Your task to perform on an android device: Show the shopping cart on bestbuy.com. Add logitech g pro to the cart on bestbuy.com, then select checkout. Image 0: 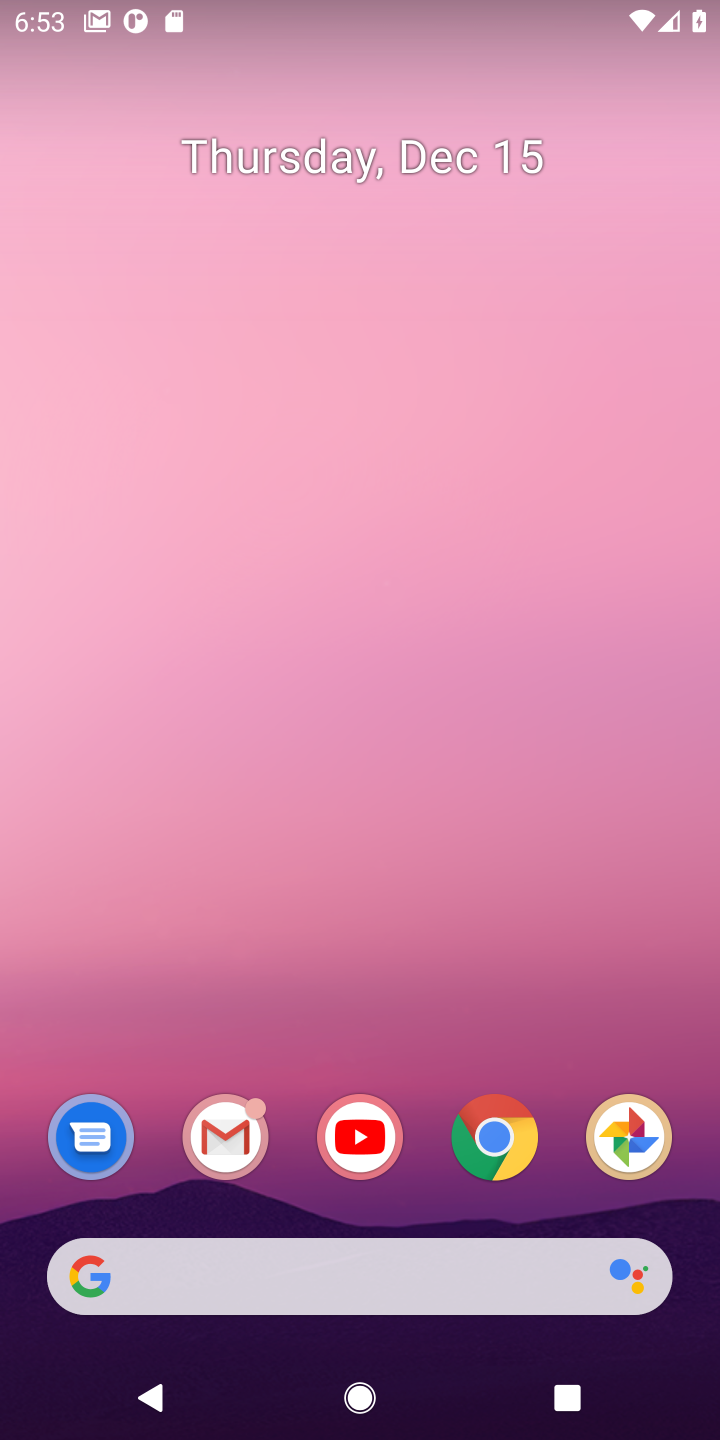
Step 0: drag from (404, 1054) to (442, 499)
Your task to perform on an android device: Show the shopping cart on bestbuy.com. Add logitech g pro to the cart on bestbuy.com, then select checkout. Image 1: 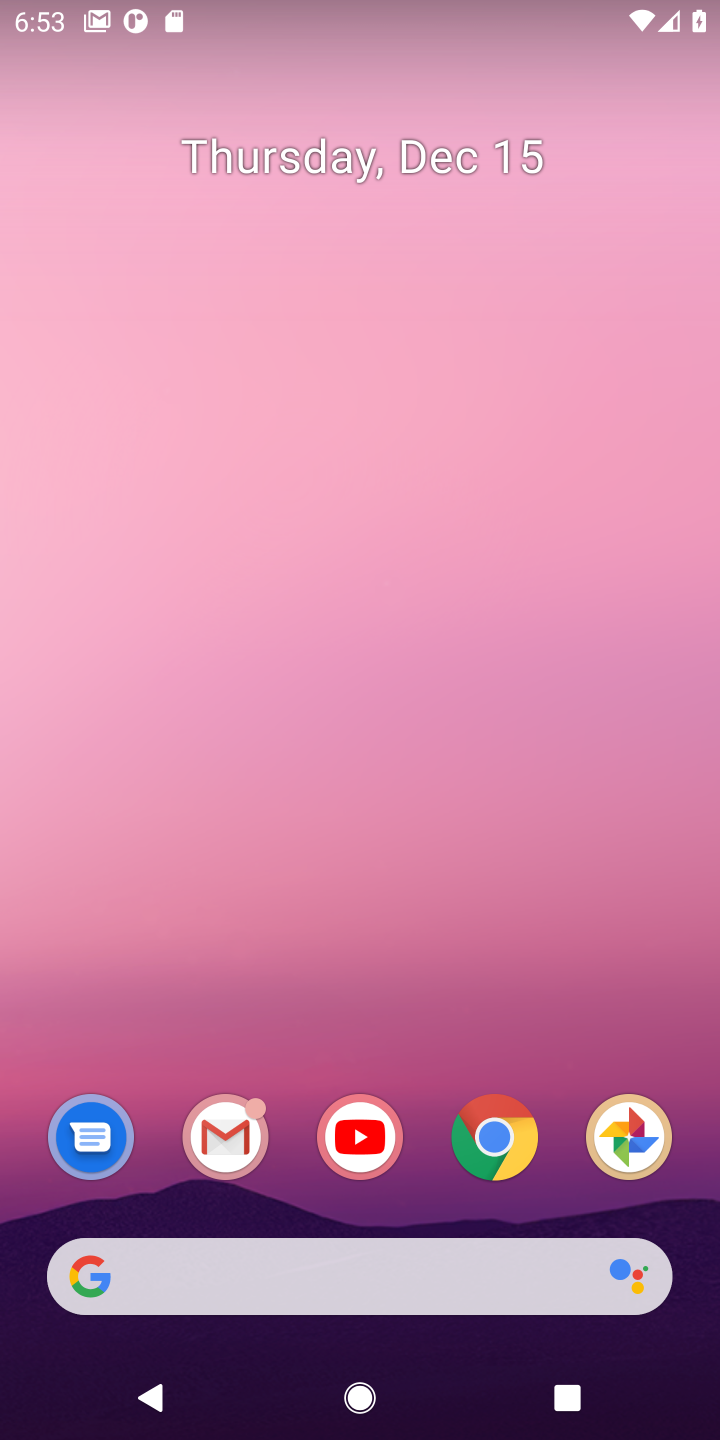
Step 1: drag from (250, 1274) to (317, 546)
Your task to perform on an android device: Show the shopping cart on bestbuy.com. Add logitech g pro to the cart on bestbuy.com, then select checkout. Image 2: 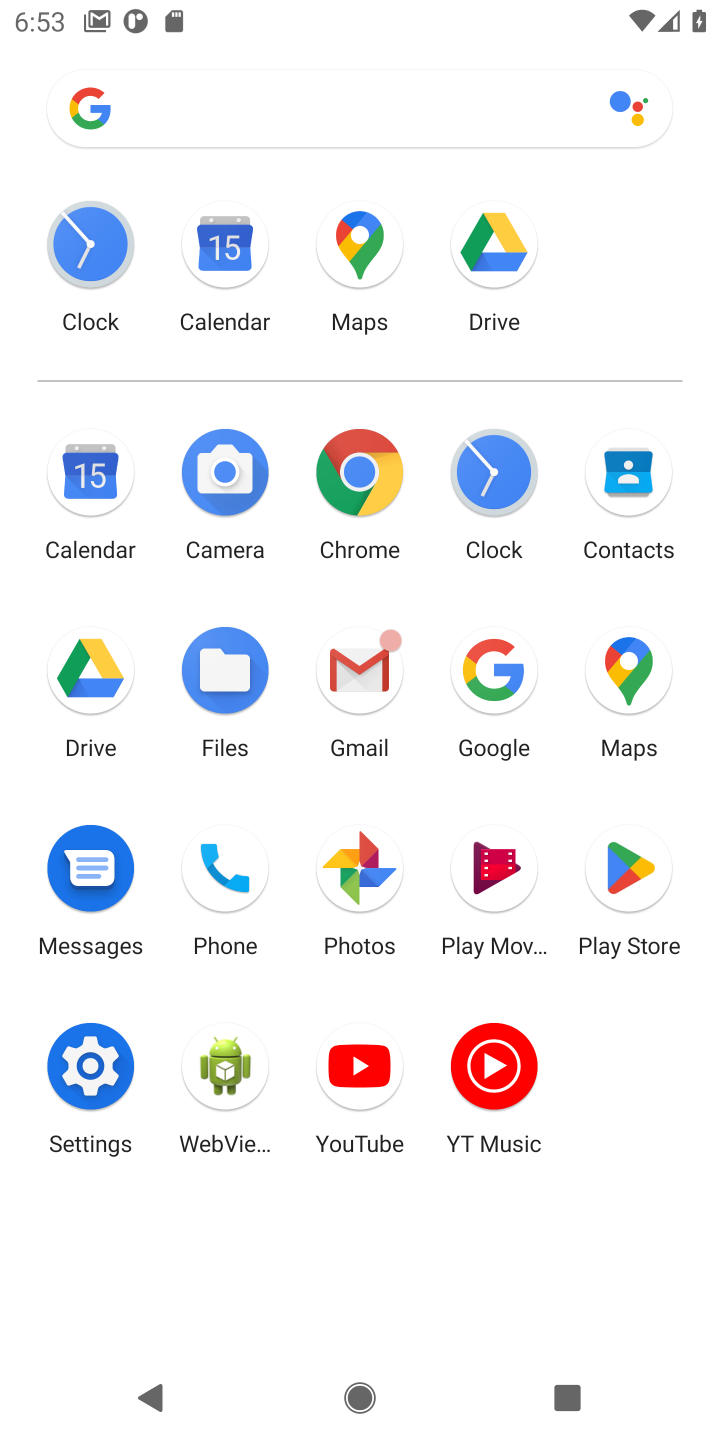
Step 2: click (497, 683)
Your task to perform on an android device: Show the shopping cart on bestbuy.com. Add logitech g pro to the cart on bestbuy.com, then select checkout. Image 3: 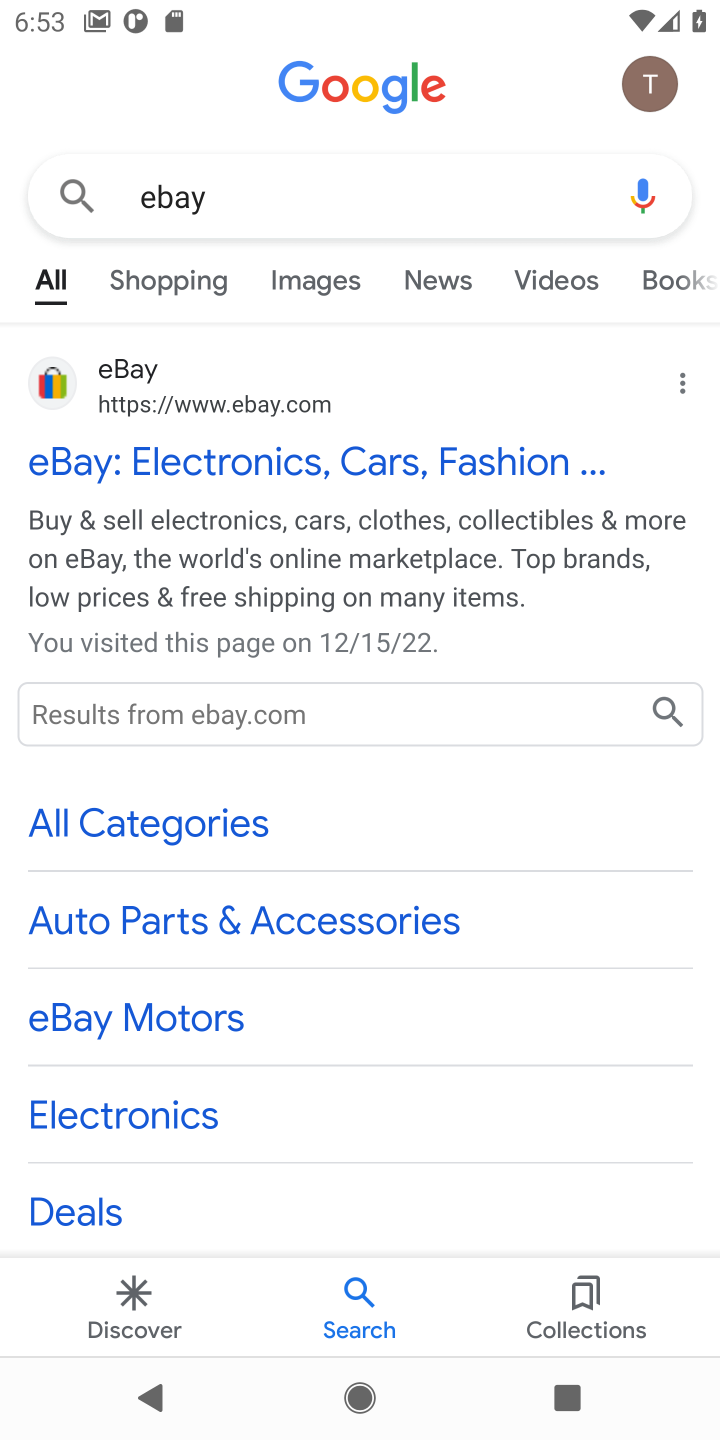
Step 3: click (175, 196)
Your task to perform on an android device: Show the shopping cart on bestbuy.com. Add logitech g pro to the cart on bestbuy.com, then select checkout. Image 4: 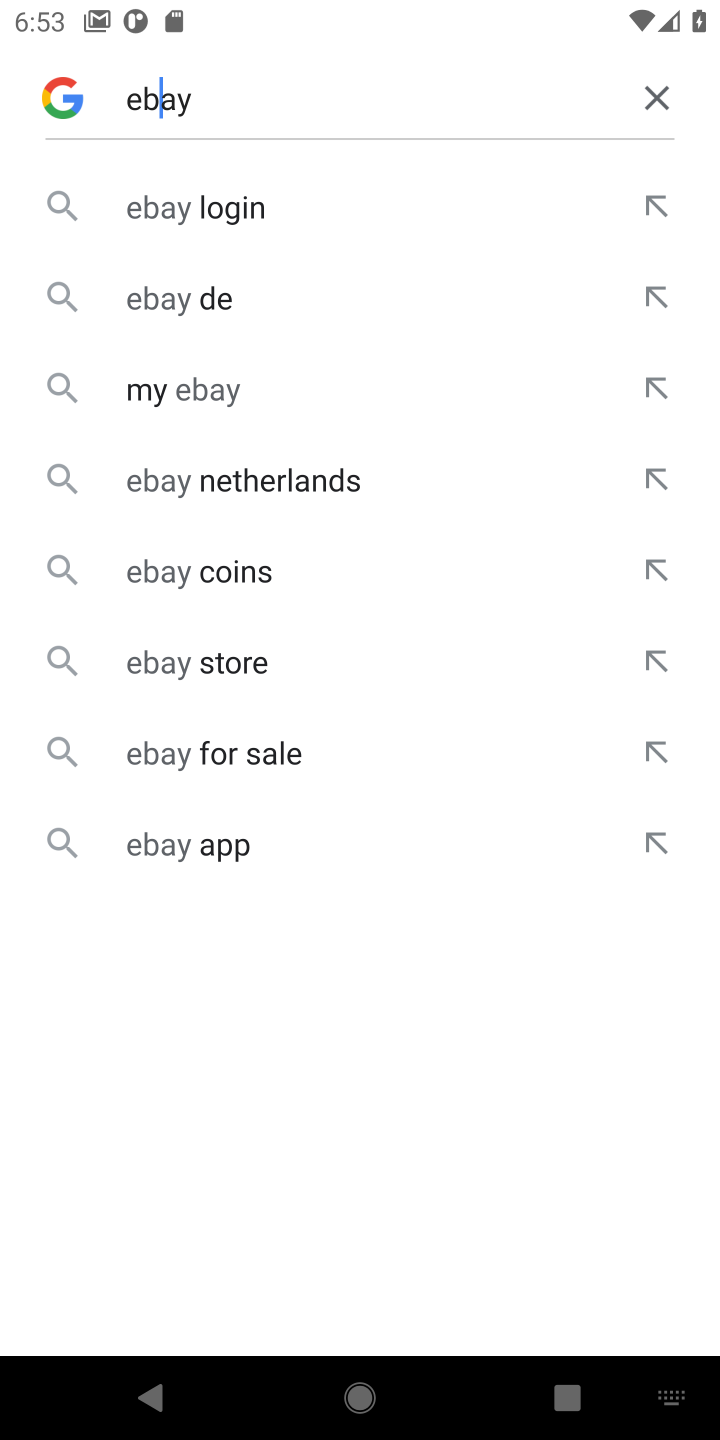
Step 4: click (652, 96)
Your task to perform on an android device: Show the shopping cart on bestbuy.com. Add logitech g pro to the cart on bestbuy.com, then select checkout. Image 5: 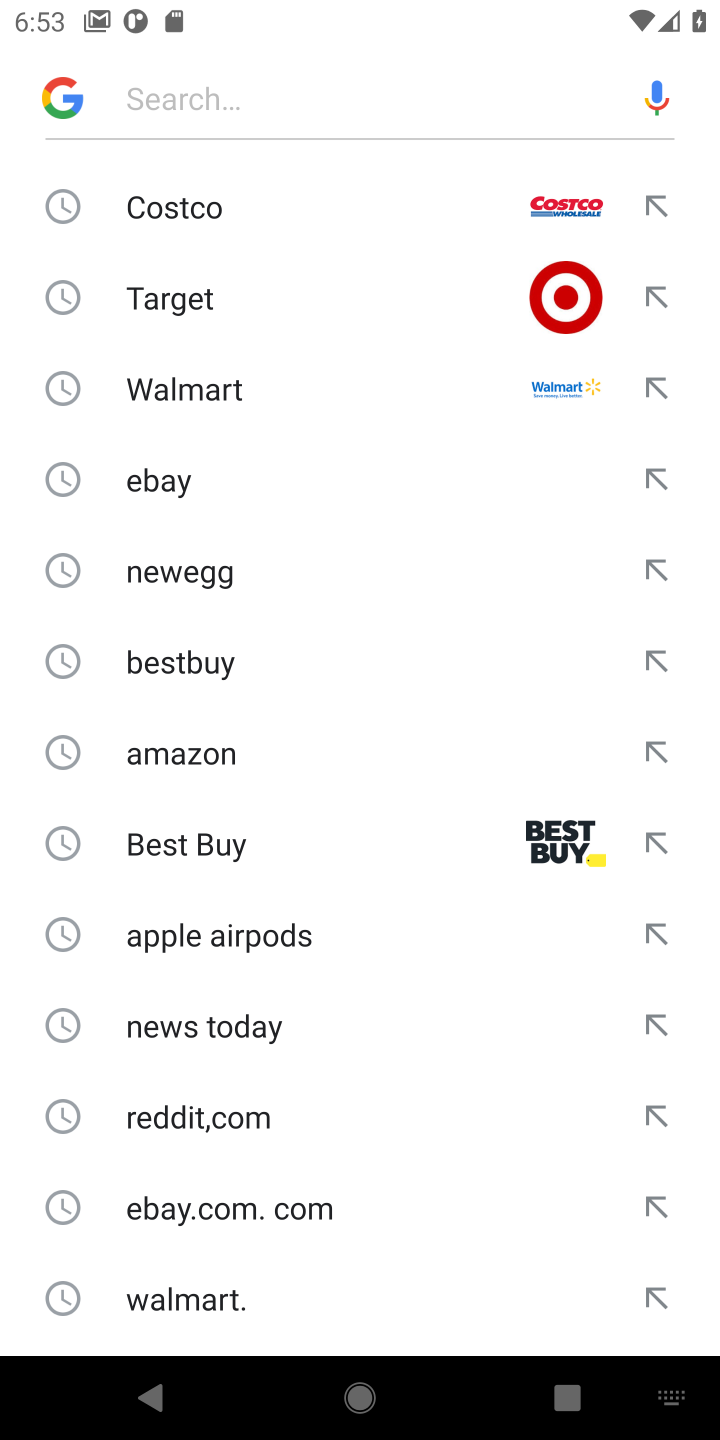
Step 5: click (178, 657)
Your task to perform on an android device: Show the shopping cart on bestbuy.com. Add logitech g pro to the cart on bestbuy.com, then select checkout. Image 6: 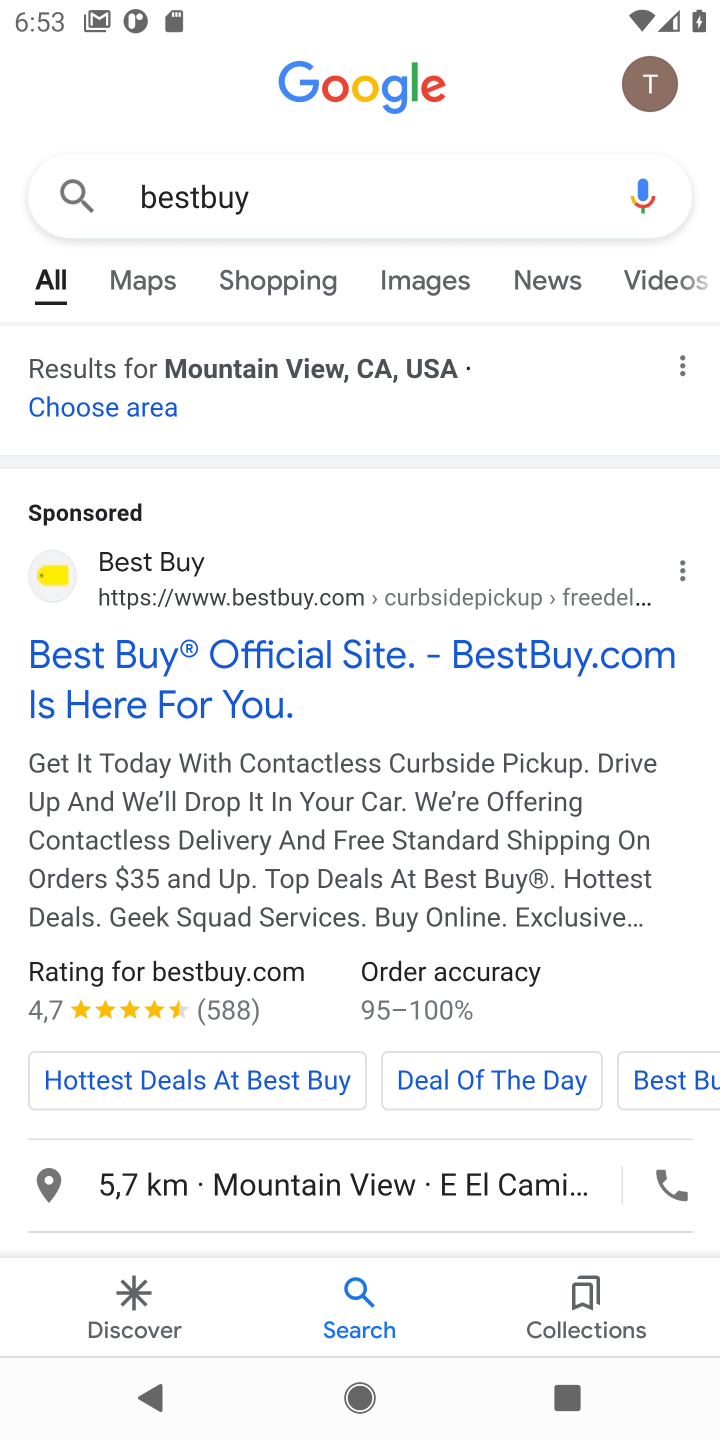
Step 6: click (190, 679)
Your task to perform on an android device: Show the shopping cart on bestbuy.com. Add logitech g pro to the cart on bestbuy.com, then select checkout. Image 7: 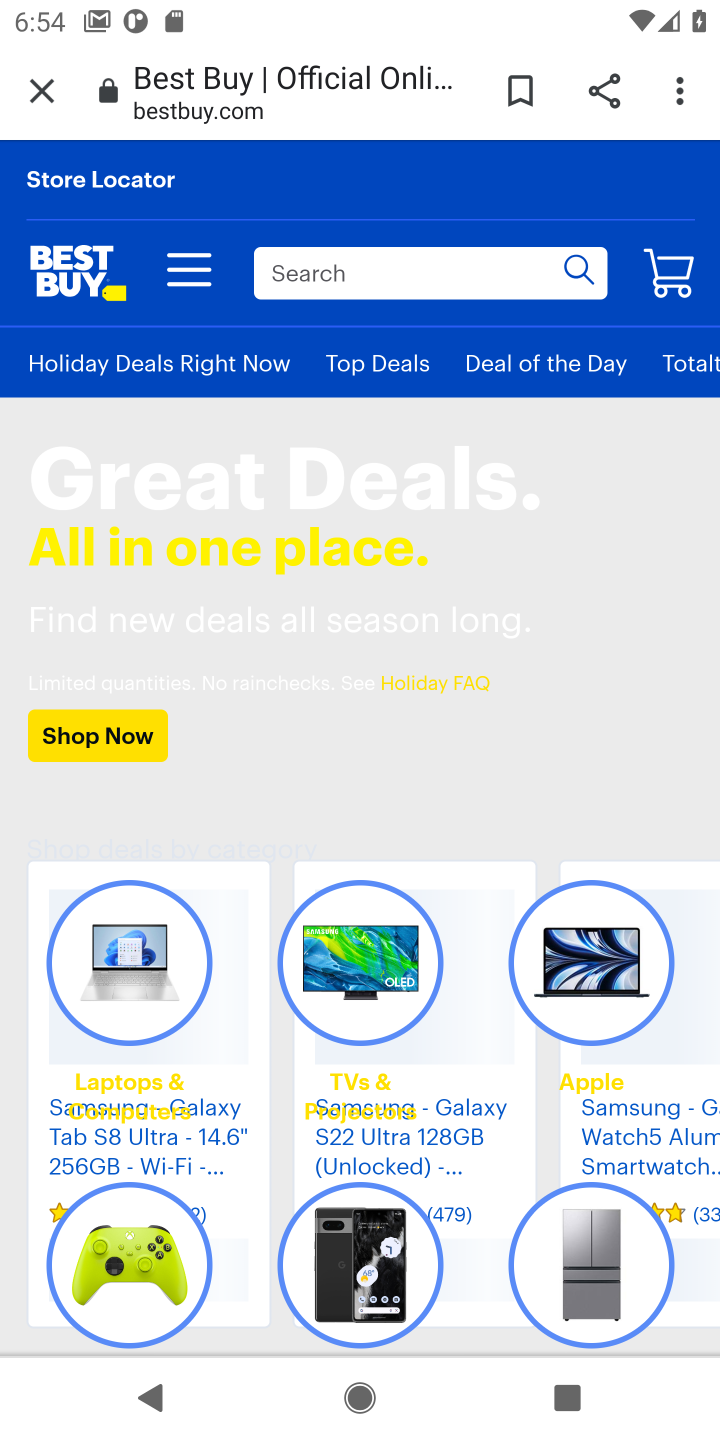
Step 7: click (346, 273)
Your task to perform on an android device: Show the shopping cart on bestbuy.com. Add logitech g pro to the cart on bestbuy.com, then select checkout. Image 8: 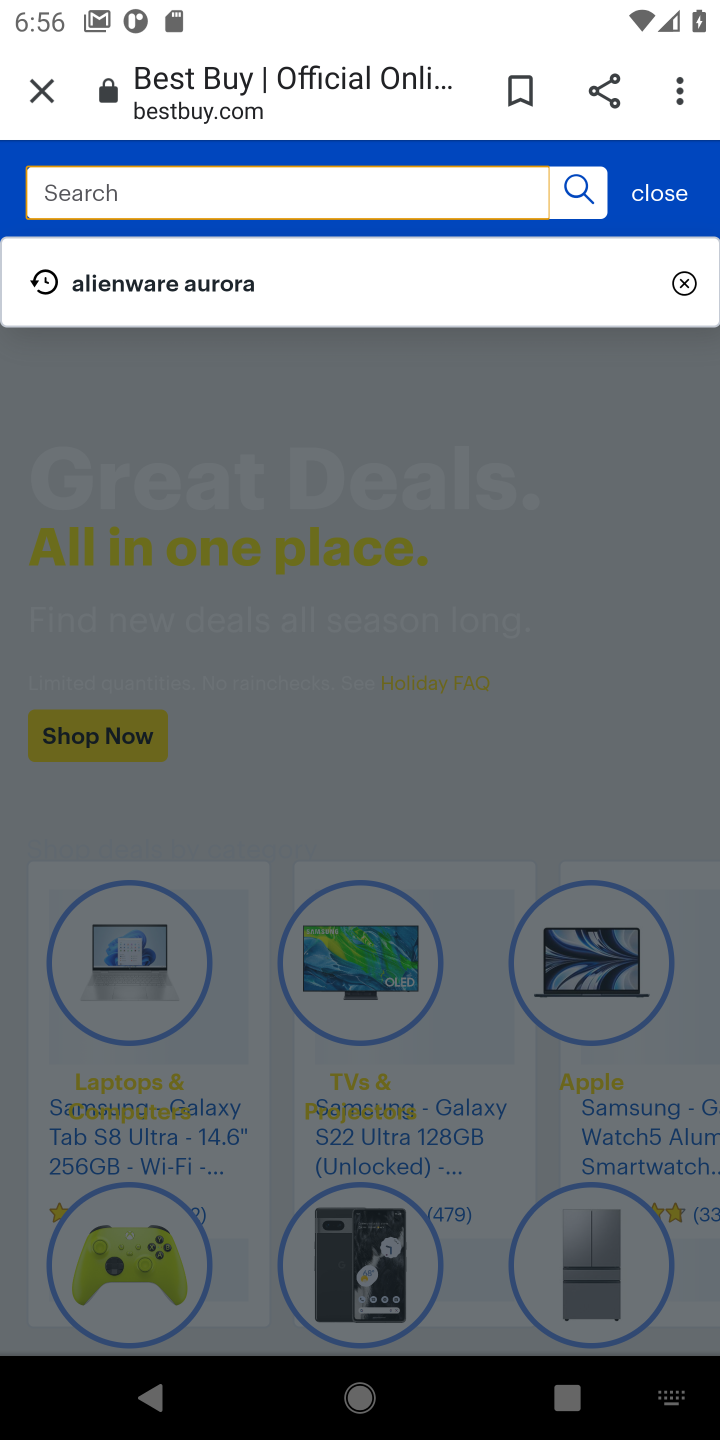
Step 8: type "logitech g pro"
Your task to perform on an android device: Show the shopping cart on bestbuy.com. Add logitech g pro to the cart on bestbuy.com, then select checkout. Image 9: 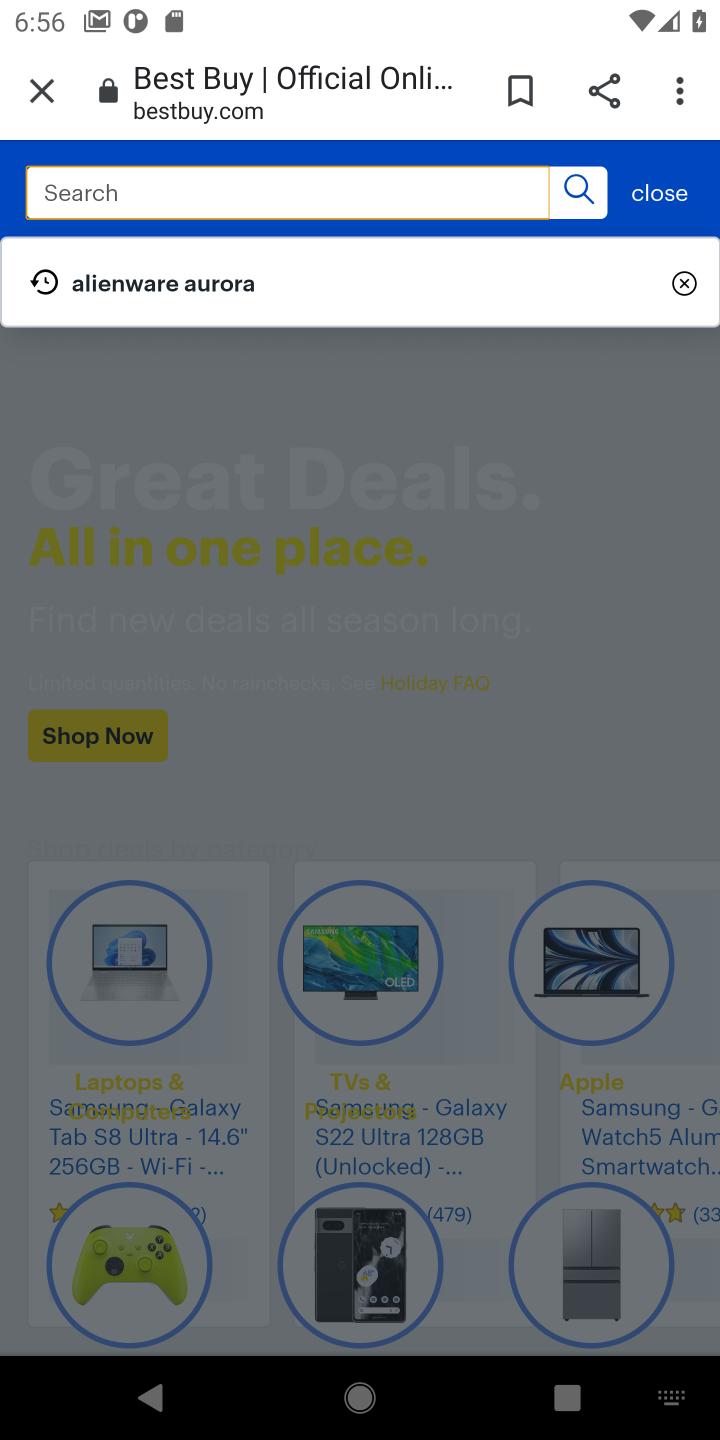
Step 9: click (575, 188)
Your task to perform on an android device: Show the shopping cart on bestbuy.com. Add logitech g pro to the cart on bestbuy.com, then select checkout. Image 10: 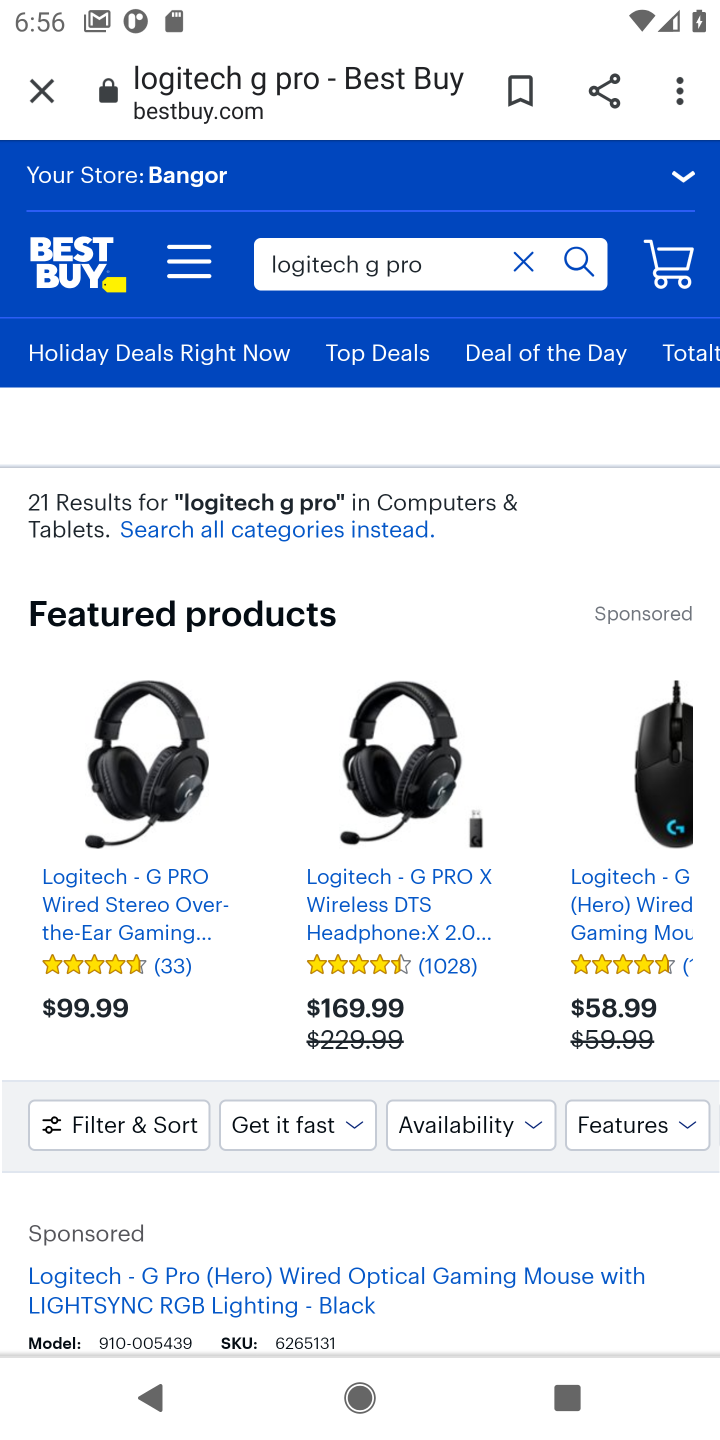
Step 10: drag from (263, 1206) to (272, 549)
Your task to perform on an android device: Show the shopping cart on bestbuy.com. Add logitech g pro to the cart on bestbuy.com, then select checkout. Image 11: 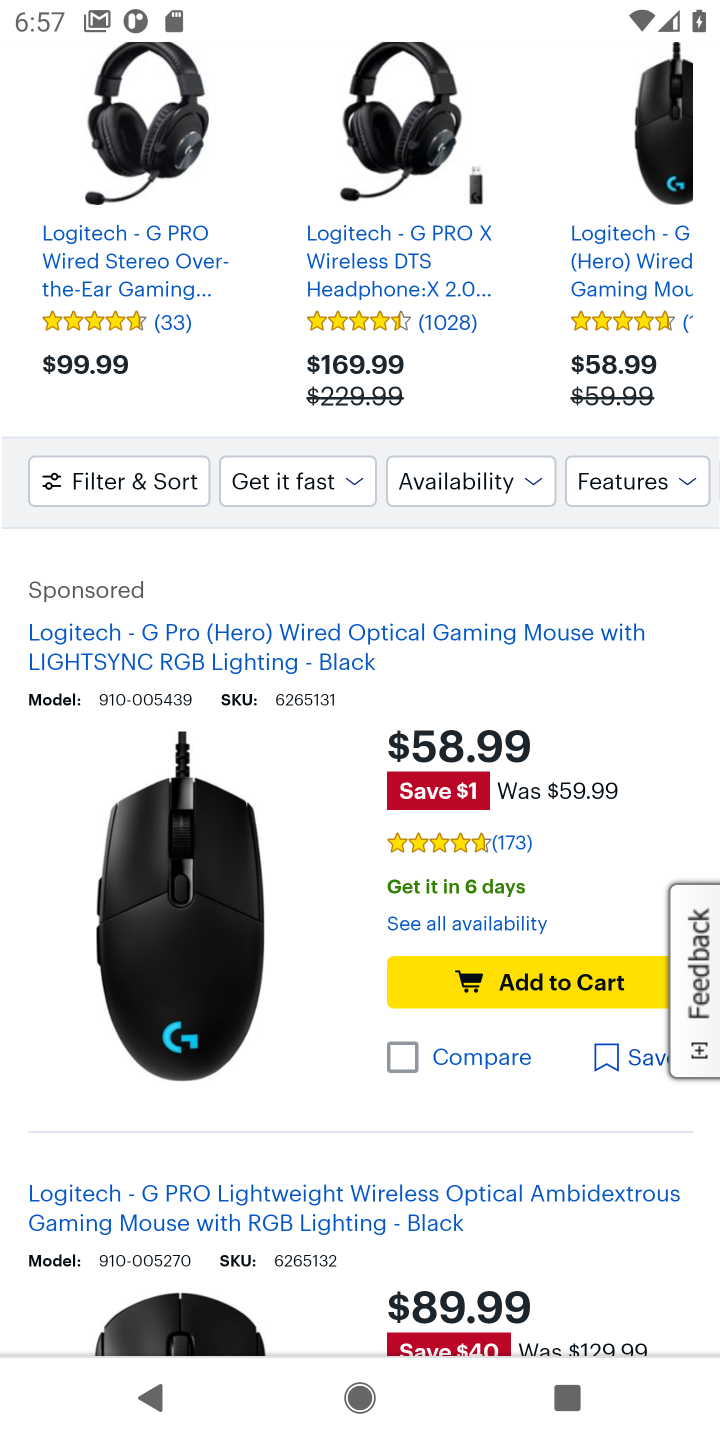
Step 11: click (585, 998)
Your task to perform on an android device: Show the shopping cart on bestbuy.com. Add logitech g pro to the cart on bestbuy.com, then select checkout. Image 12: 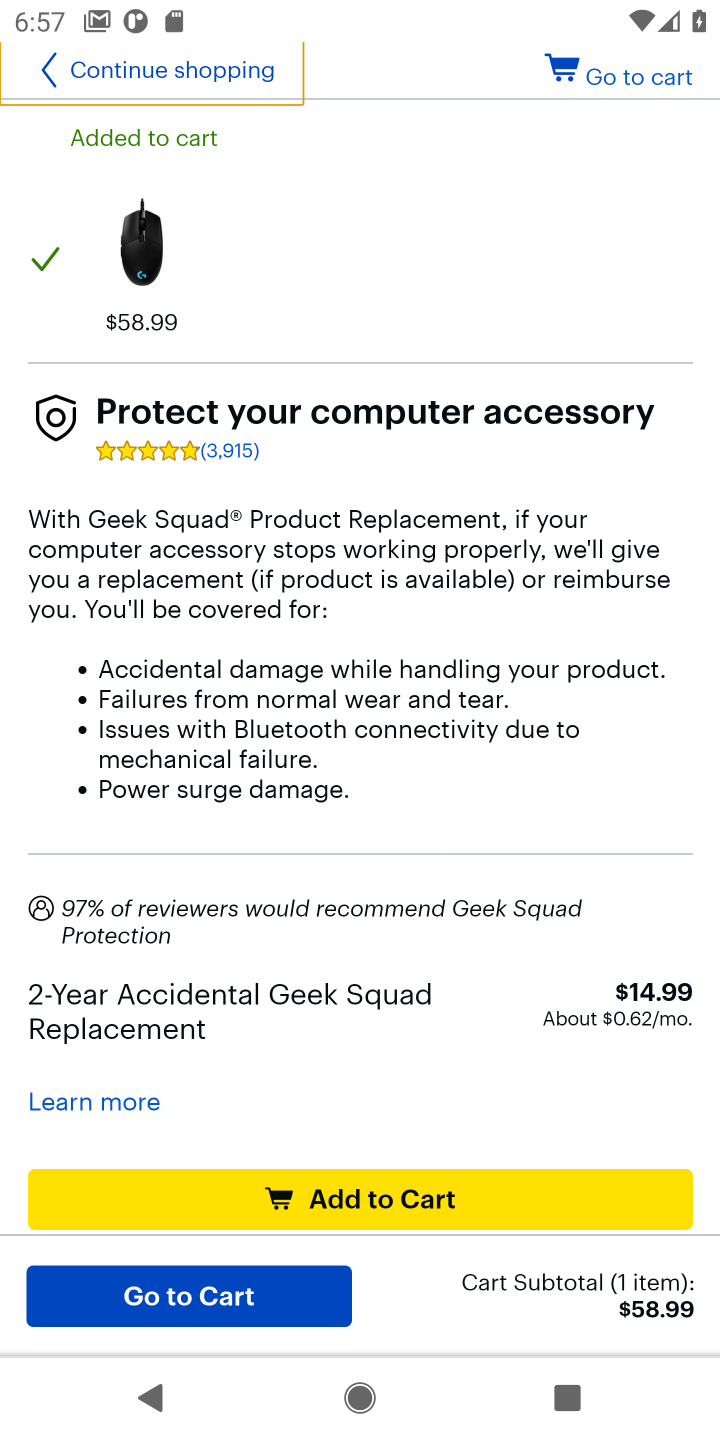
Step 12: click (286, 1193)
Your task to perform on an android device: Show the shopping cart on bestbuy.com. Add logitech g pro to the cart on bestbuy.com, then select checkout. Image 13: 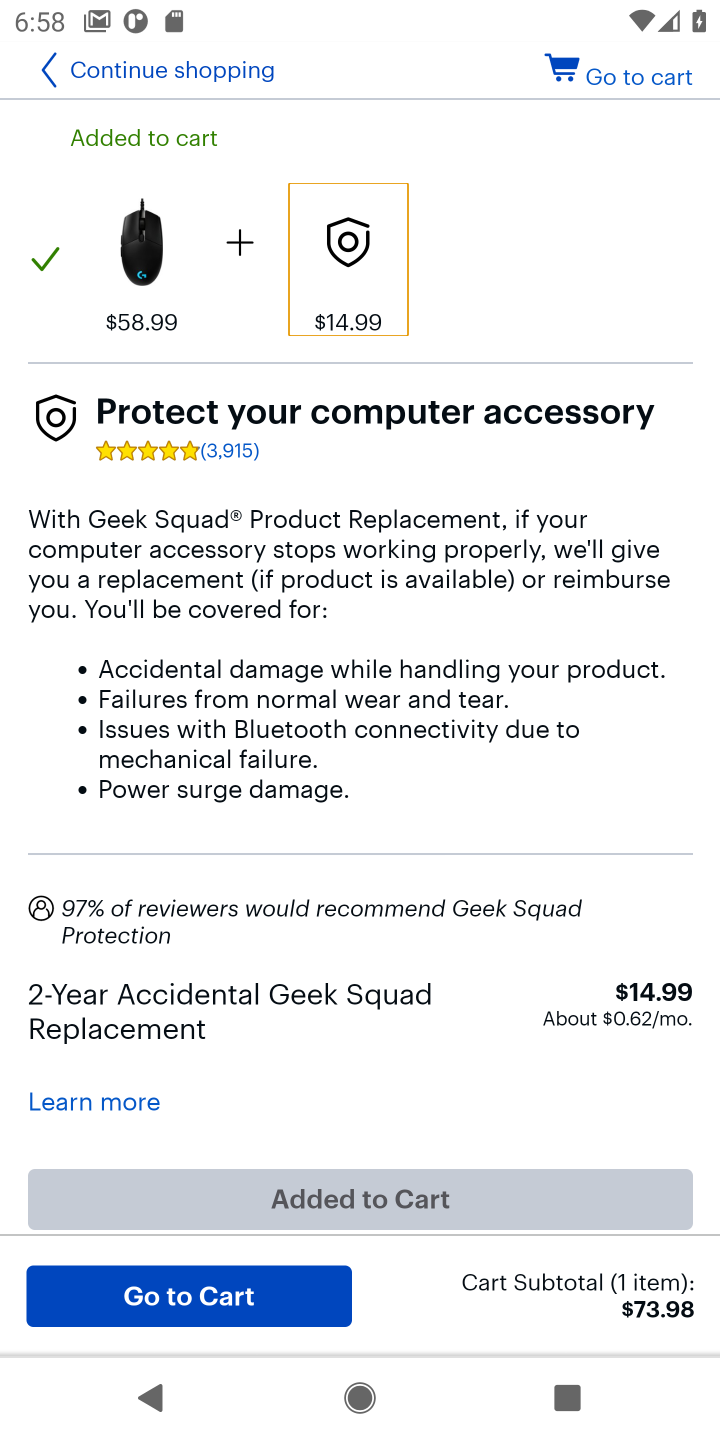
Step 13: task complete